Your task to perform on an android device: Open maps Image 0: 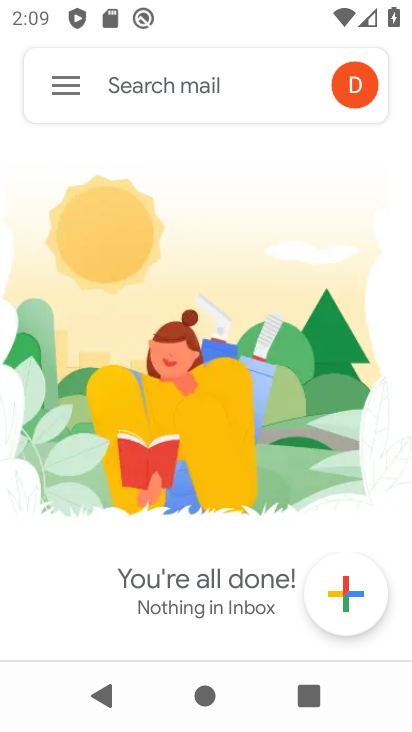
Step 0: press back button
Your task to perform on an android device: Open maps Image 1: 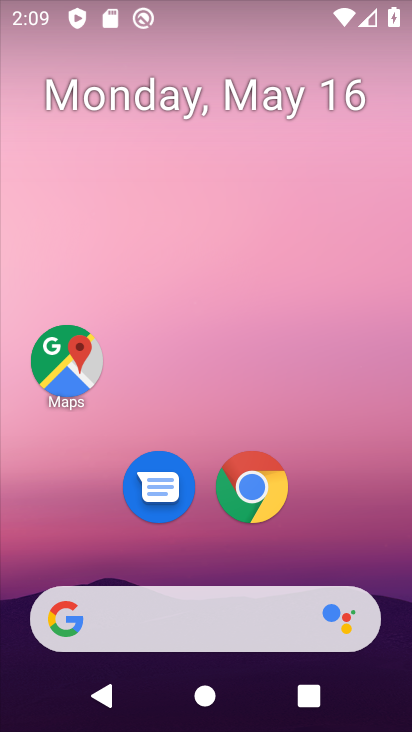
Step 1: click (335, 542)
Your task to perform on an android device: Open maps Image 2: 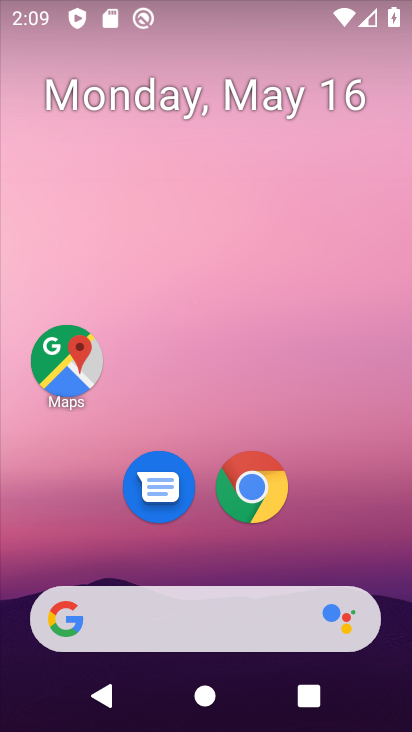
Step 2: click (62, 368)
Your task to perform on an android device: Open maps Image 3: 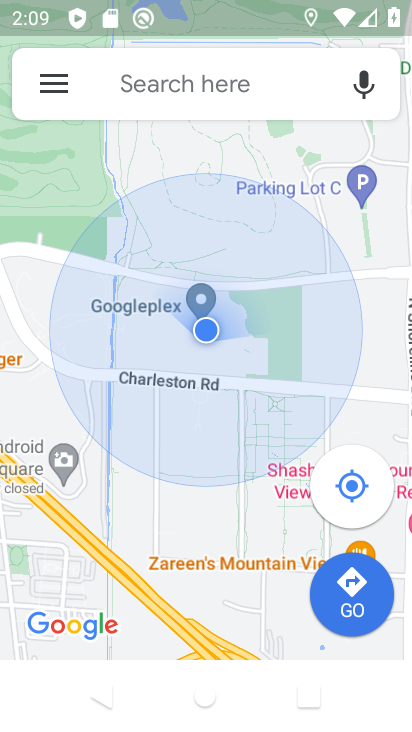
Step 3: task complete